Your task to perform on an android device: Go to Google Image 0: 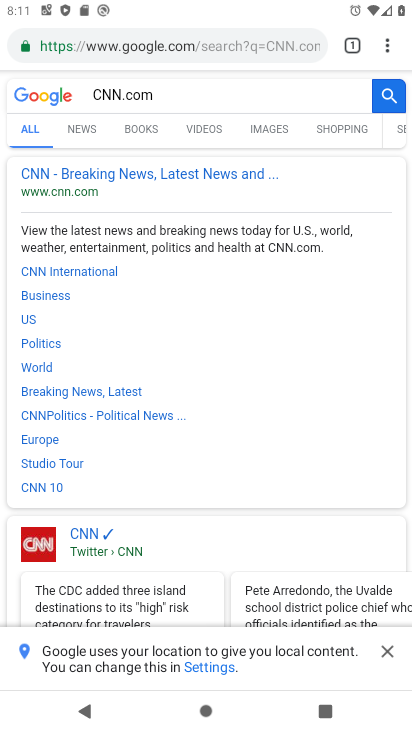
Step 0: press home button
Your task to perform on an android device: Go to Google Image 1: 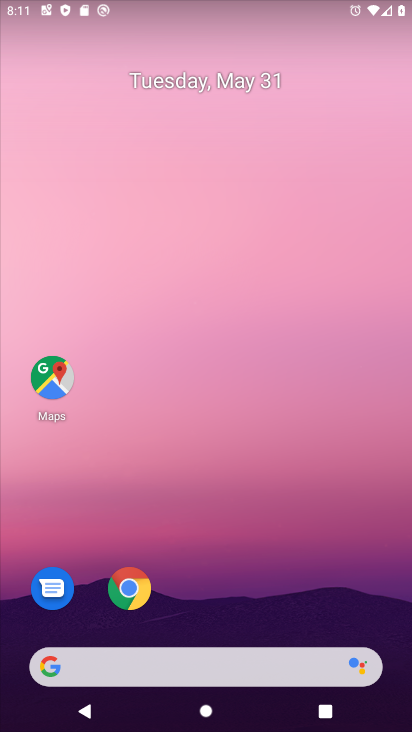
Step 1: click (124, 668)
Your task to perform on an android device: Go to Google Image 2: 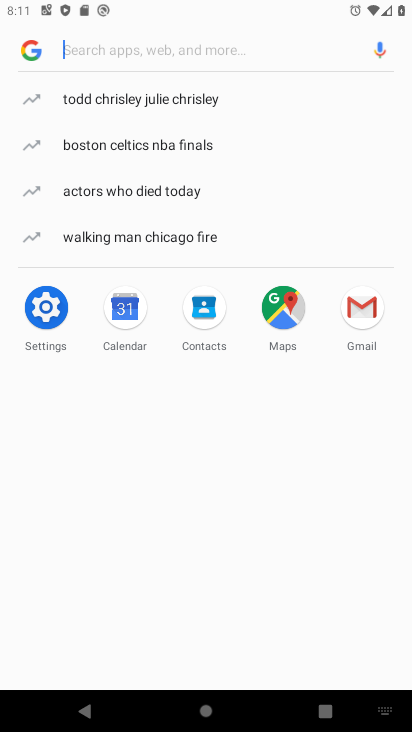
Step 2: click (21, 48)
Your task to perform on an android device: Go to Google Image 3: 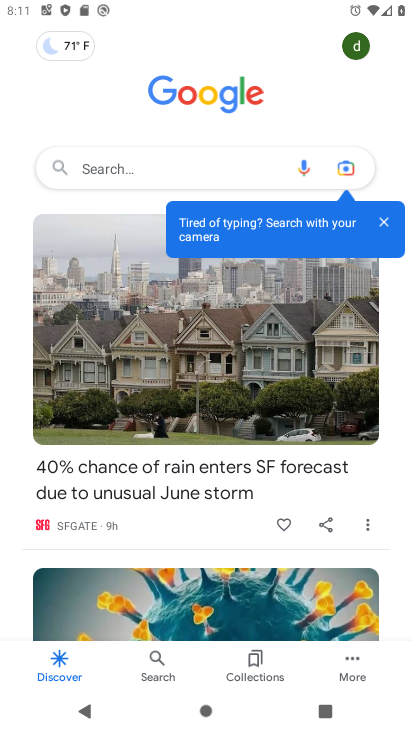
Step 3: task complete